Your task to perform on an android device: Go to sound settings Image 0: 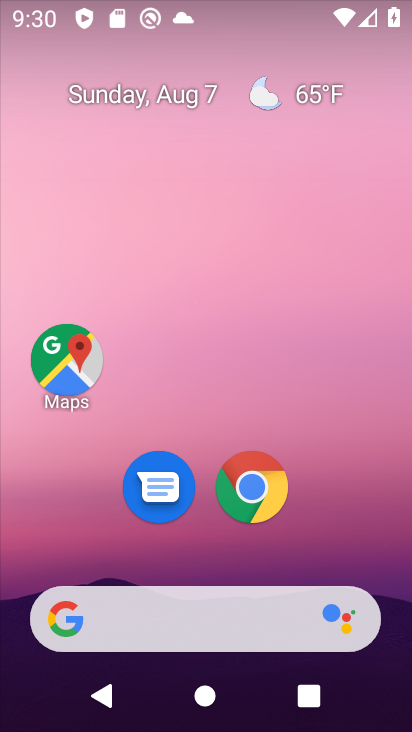
Step 0: drag from (398, 651) to (354, 5)
Your task to perform on an android device: Go to sound settings Image 1: 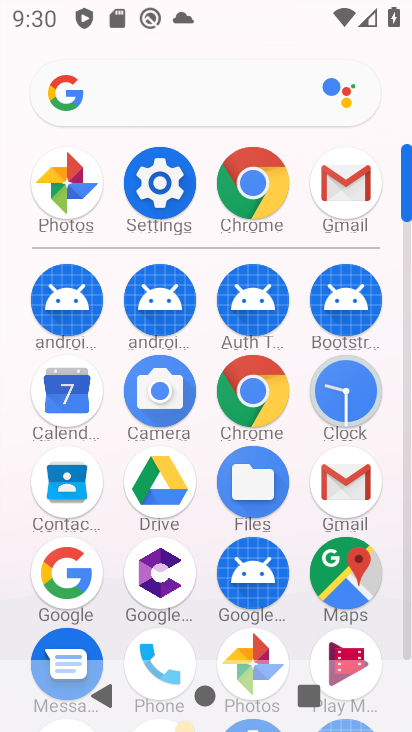
Step 1: click (172, 195)
Your task to perform on an android device: Go to sound settings Image 2: 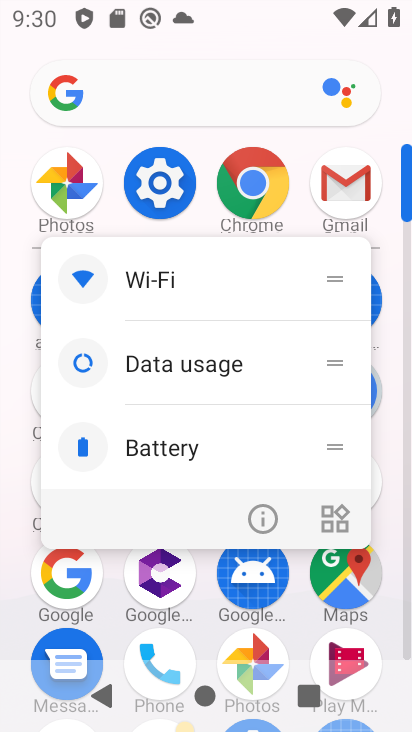
Step 2: click (153, 196)
Your task to perform on an android device: Go to sound settings Image 3: 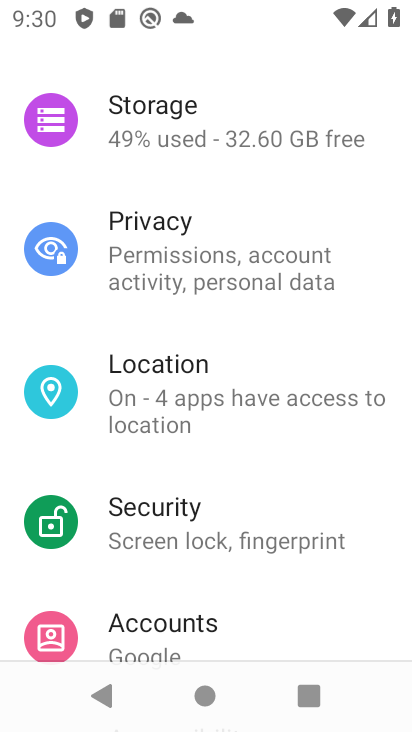
Step 3: drag from (258, 122) to (310, 523)
Your task to perform on an android device: Go to sound settings Image 4: 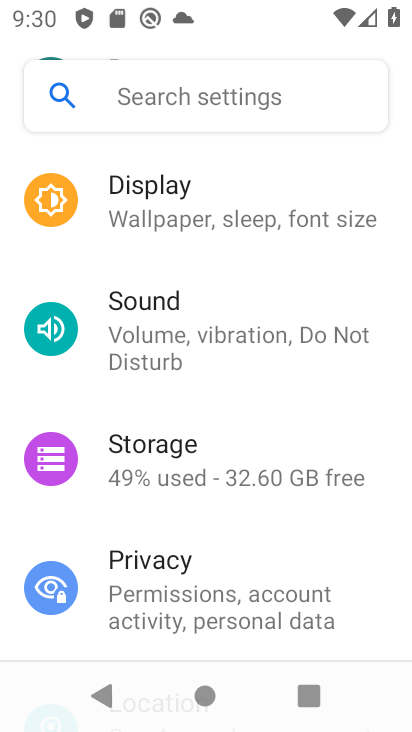
Step 4: click (126, 299)
Your task to perform on an android device: Go to sound settings Image 5: 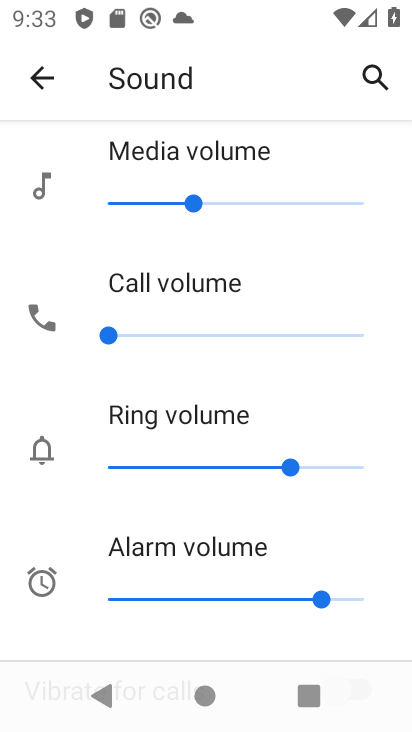
Step 5: task complete